Your task to perform on an android device: turn on data saver in the chrome app Image 0: 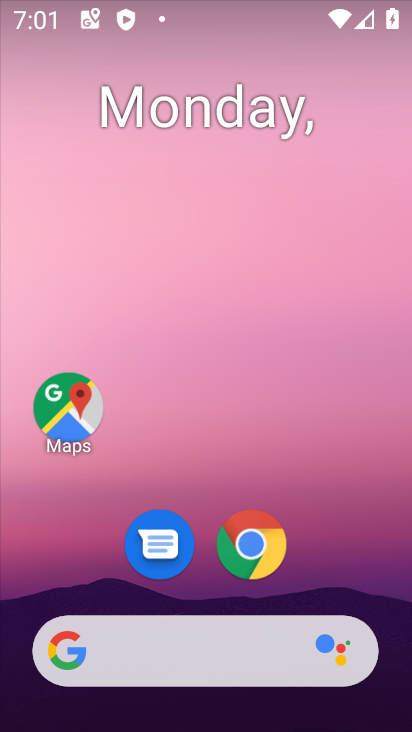
Step 0: click (267, 537)
Your task to perform on an android device: turn on data saver in the chrome app Image 1: 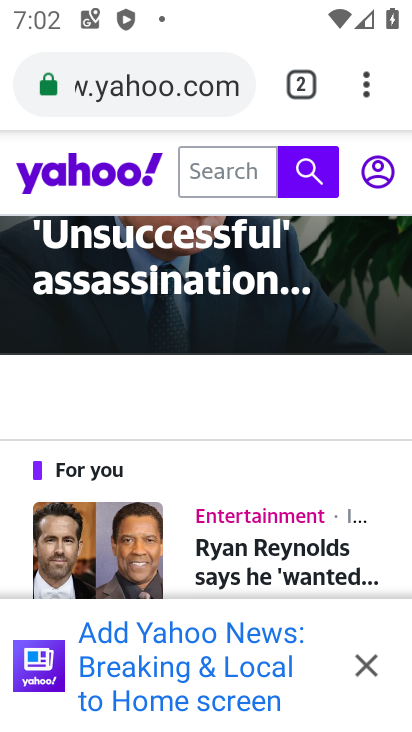
Step 1: click (367, 76)
Your task to perform on an android device: turn on data saver in the chrome app Image 2: 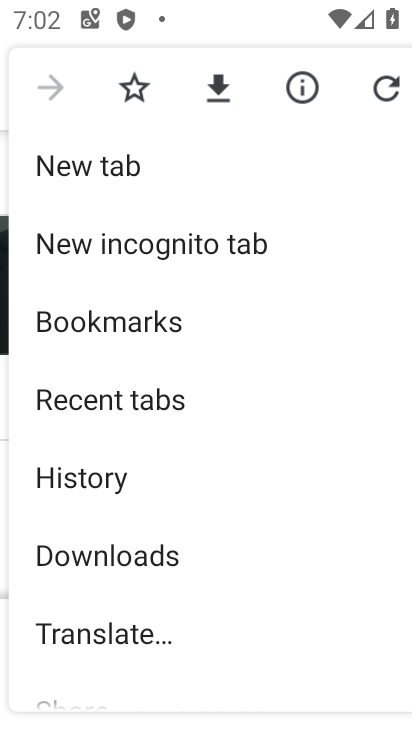
Step 2: drag from (249, 607) to (247, 298)
Your task to perform on an android device: turn on data saver in the chrome app Image 3: 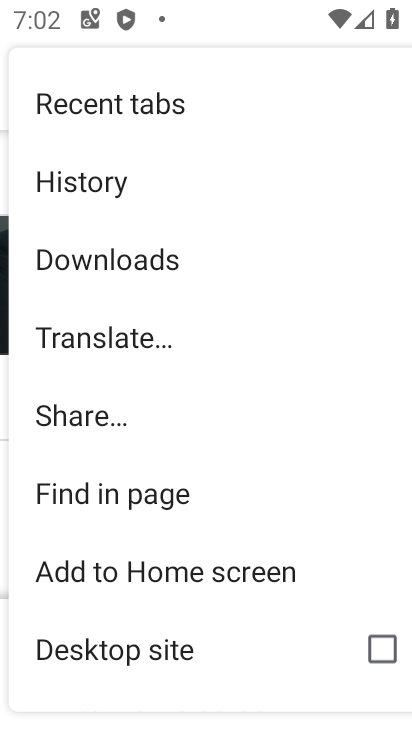
Step 3: drag from (232, 633) to (215, 340)
Your task to perform on an android device: turn on data saver in the chrome app Image 4: 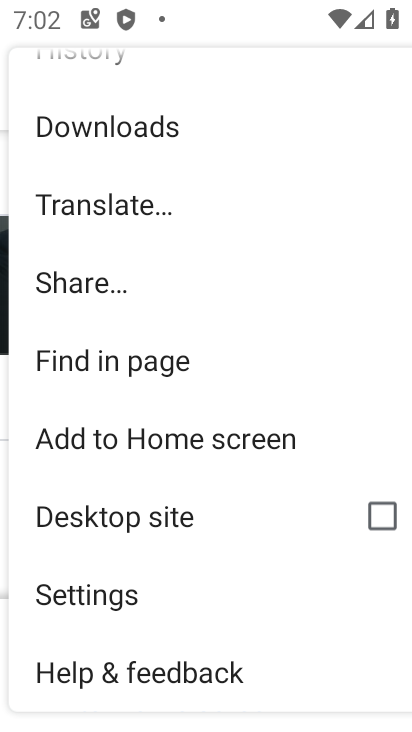
Step 4: click (99, 590)
Your task to perform on an android device: turn on data saver in the chrome app Image 5: 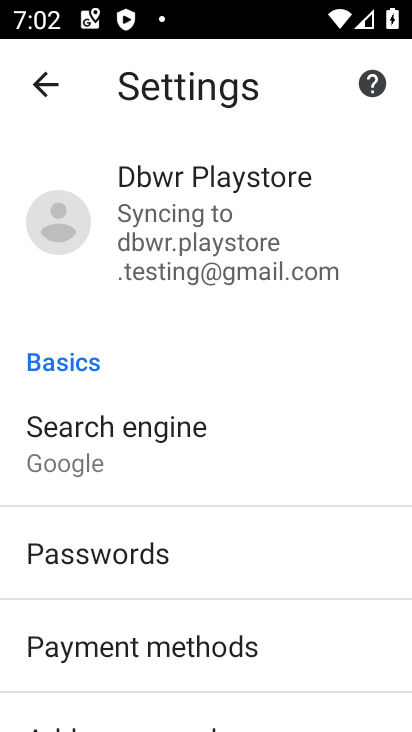
Step 5: drag from (235, 552) to (209, 196)
Your task to perform on an android device: turn on data saver in the chrome app Image 6: 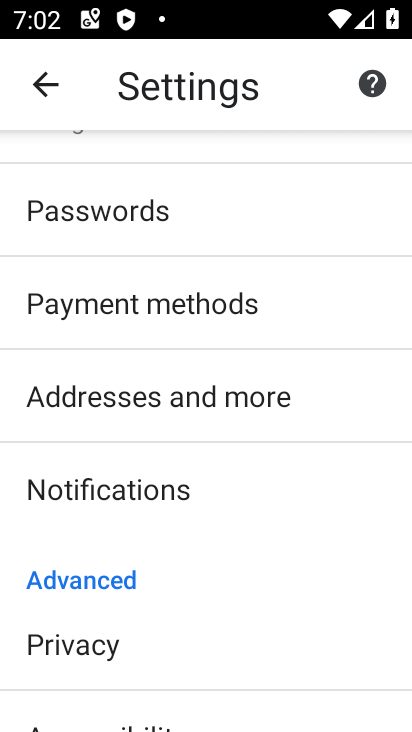
Step 6: drag from (282, 555) to (254, 196)
Your task to perform on an android device: turn on data saver in the chrome app Image 7: 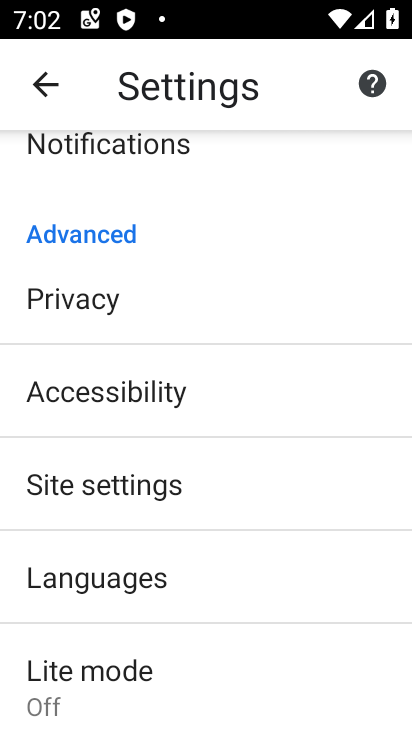
Step 7: click (97, 663)
Your task to perform on an android device: turn on data saver in the chrome app Image 8: 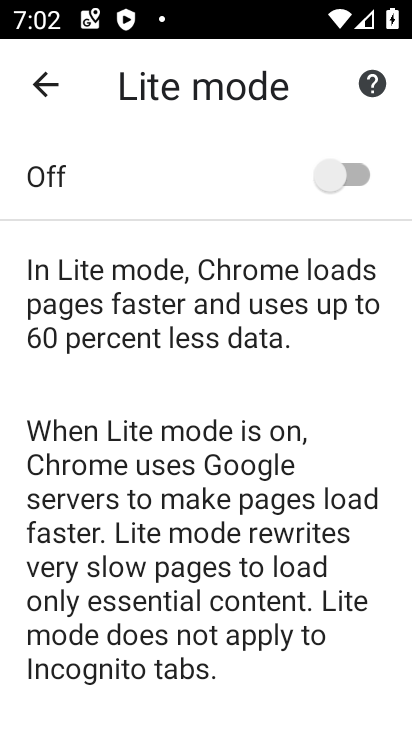
Step 8: click (340, 165)
Your task to perform on an android device: turn on data saver in the chrome app Image 9: 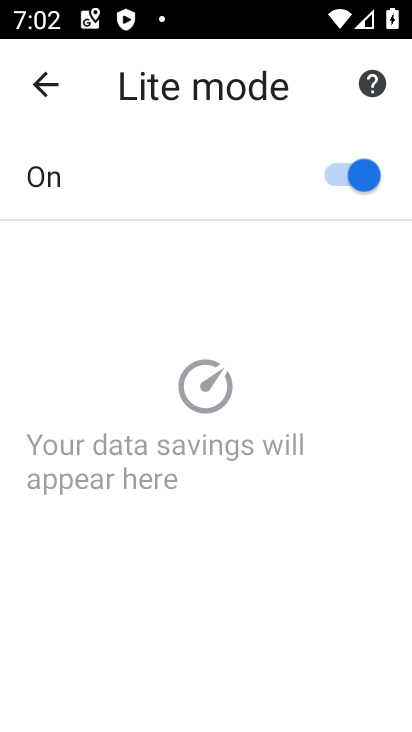
Step 9: task complete